Your task to perform on an android device: see tabs open on other devices in the chrome app Image 0: 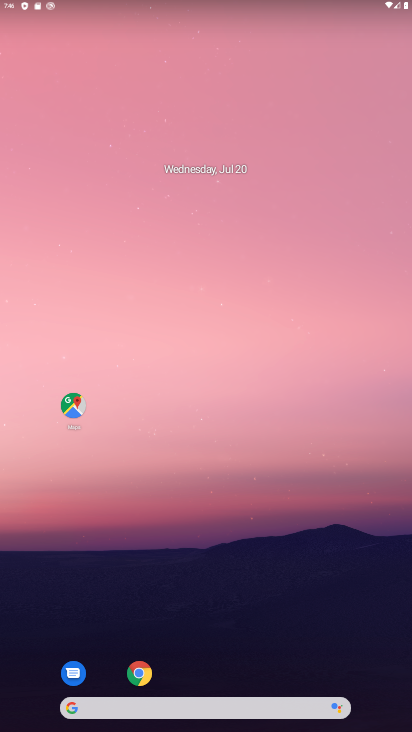
Step 0: click (114, 4)
Your task to perform on an android device: see tabs open on other devices in the chrome app Image 1: 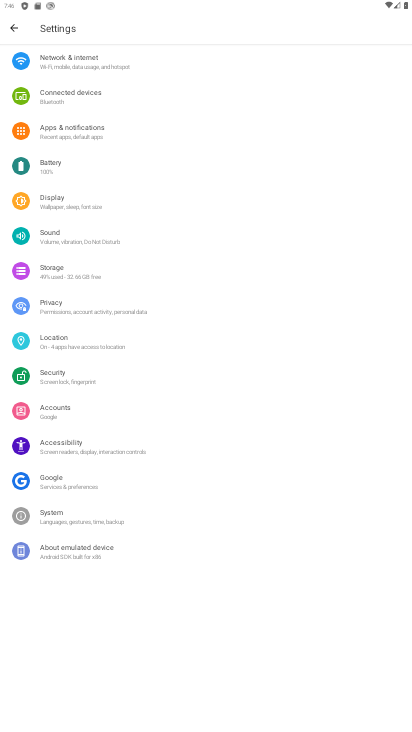
Step 1: drag from (147, 586) to (239, 74)
Your task to perform on an android device: see tabs open on other devices in the chrome app Image 2: 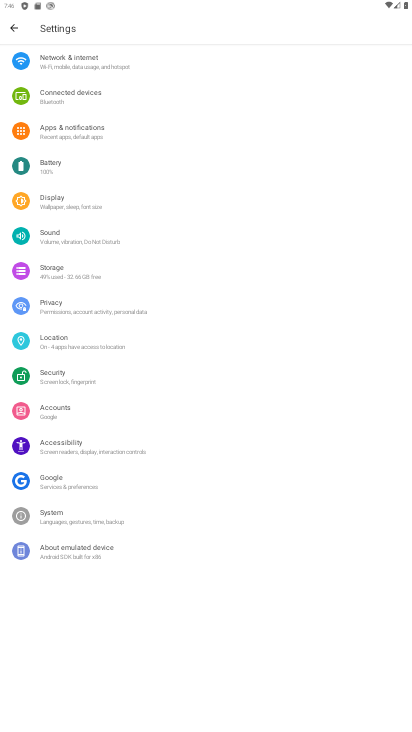
Step 2: press home button
Your task to perform on an android device: see tabs open on other devices in the chrome app Image 3: 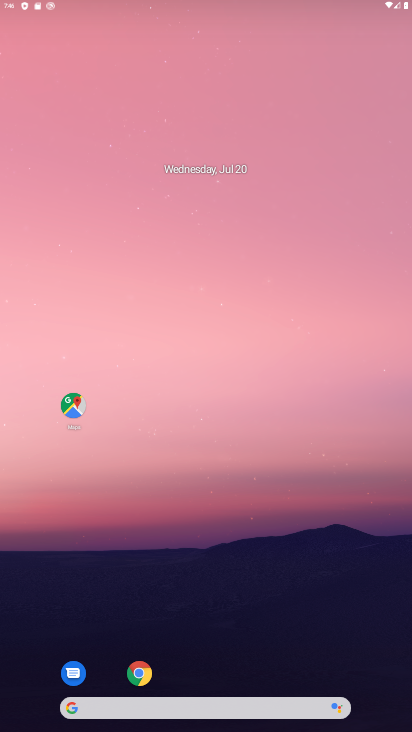
Step 3: drag from (222, 647) to (327, 136)
Your task to perform on an android device: see tabs open on other devices in the chrome app Image 4: 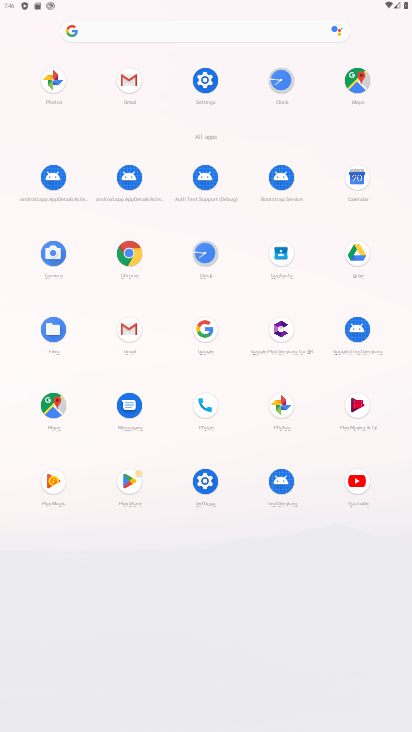
Step 4: click (123, 257)
Your task to perform on an android device: see tabs open on other devices in the chrome app Image 5: 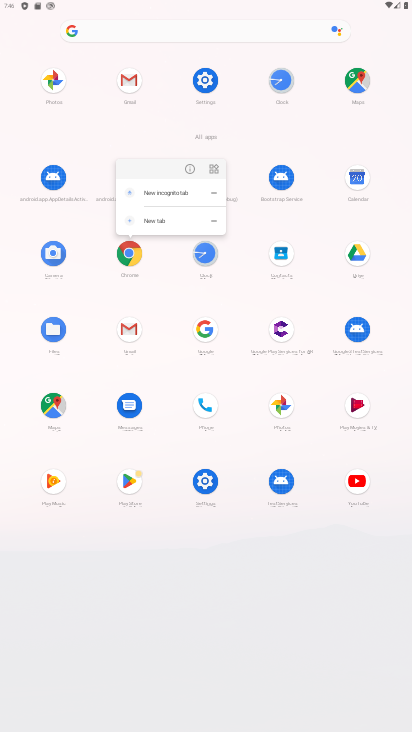
Step 5: click (185, 163)
Your task to perform on an android device: see tabs open on other devices in the chrome app Image 6: 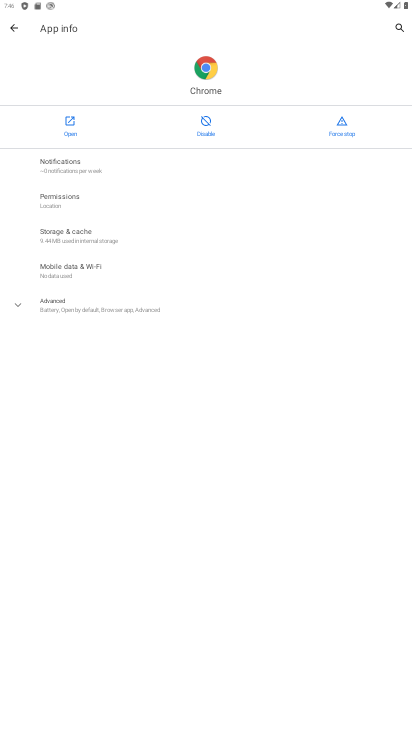
Step 6: click (60, 121)
Your task to perform on an android device: see tabs open on other devices in the chrome app Image 7: 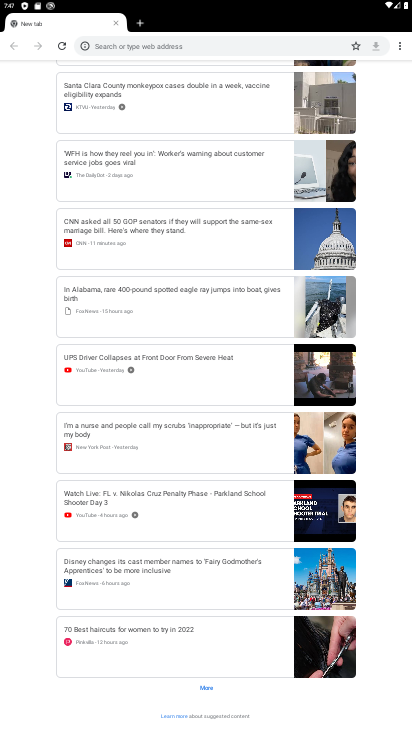
Step 7: drag from (402, 46) to (331, 120)
Your task to perform on an android device: see tabs open on other devices in the chrome app Image 8: 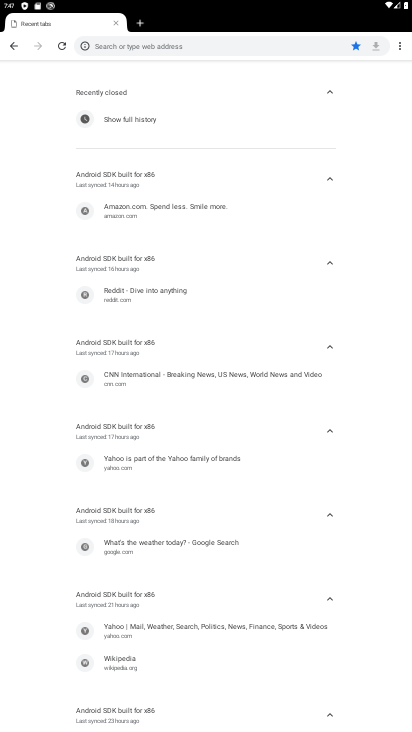
Step 8: click (275, 214)
Your task to perform on an android device: see tabs open on other devices in the chrome app Image 9: 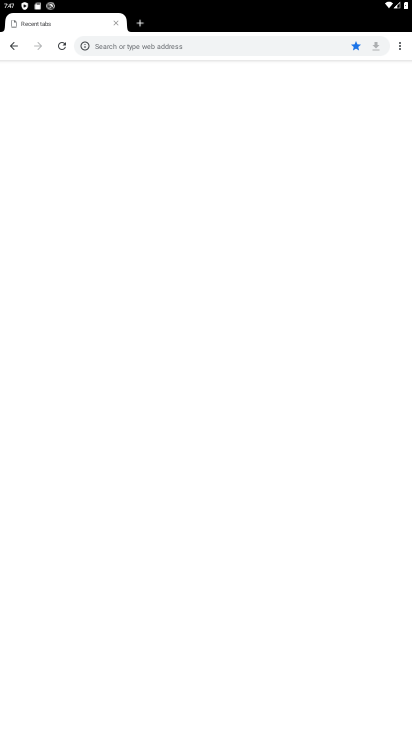
Step 9: task complete